Your task to perform on an android device: turn off priority inbox in the gmail app Image 0: 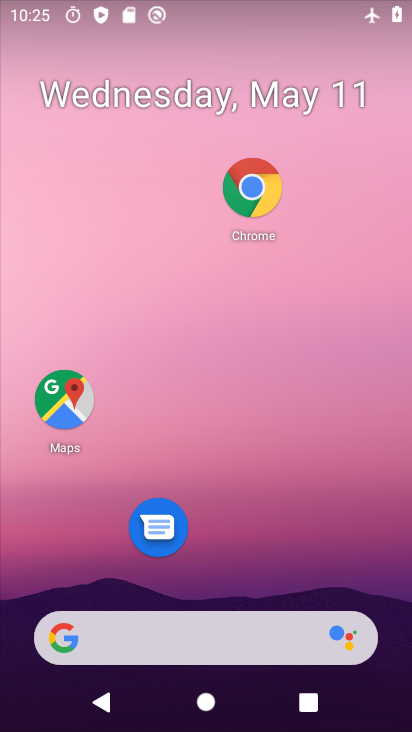
Step 0: drag from (215, 599) to (223, 337)
Your task to perform on an android device: turn off priority inbox in the gmail app Image 1: 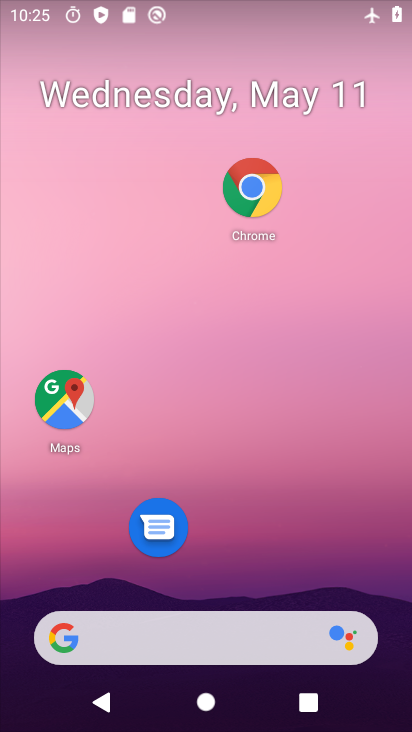
Step 1: drag from (248, 536) to (255, 175)
Your task to perform on an android device: turn off priority inbox in the gmail app Image 2: 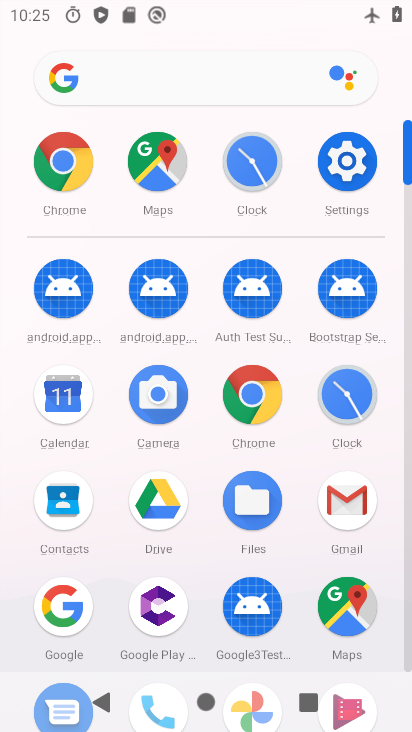
Step 2: click (351, 501)
Your task to perform on an android device: turn off priority inbox in the gmail app Image 3: 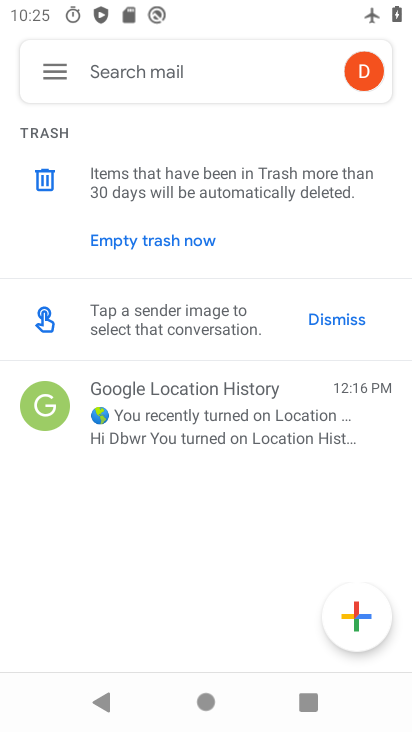
Step 3: click (54, 81)
Your task to perform on an android device: turn off priority inbox in the gmail app Image 4: 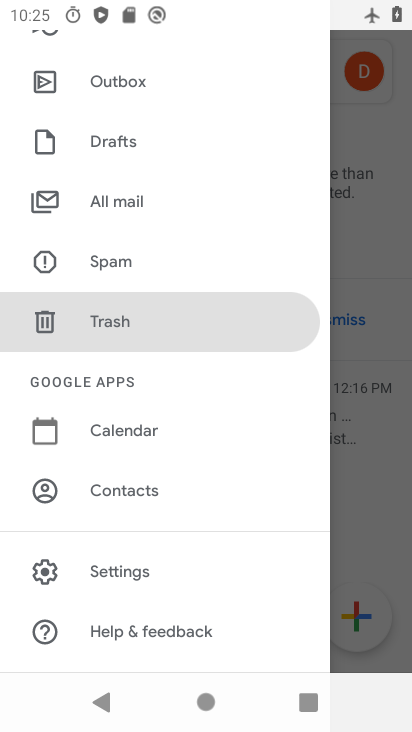
Step 4: drag from (133, 522) to (169, 370)
Your task to perform on an android device: turn off priority inbox in the gmail app Image 5: 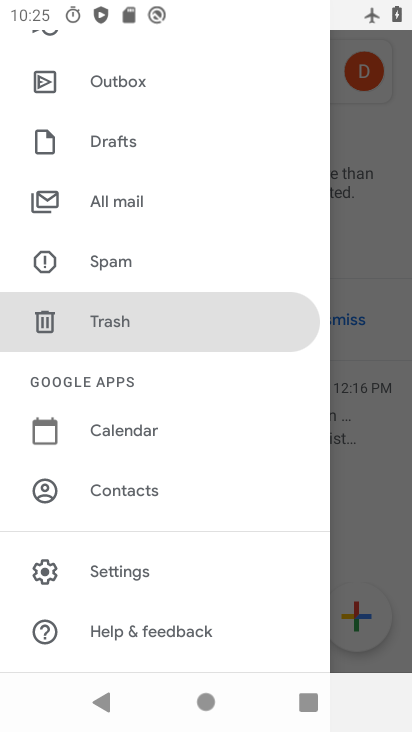
Step 5: click (143, 569)
Your task to perform on an android device: turn off priority inbox in the gmail app Image 6: 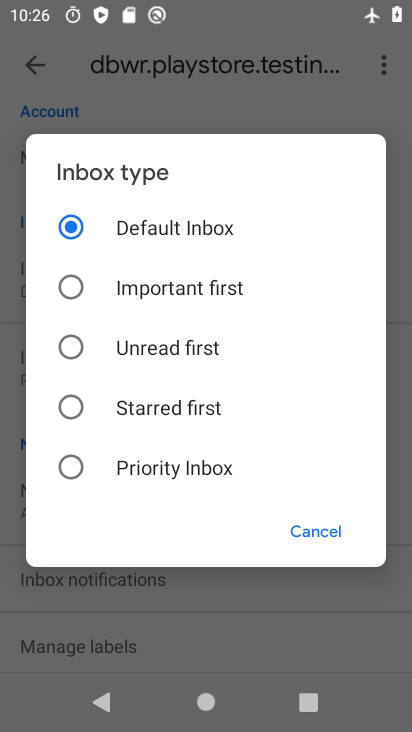
Step 6: task complete